Your task to perform on an android device: manage bookmarks in the chrome app Image 0: 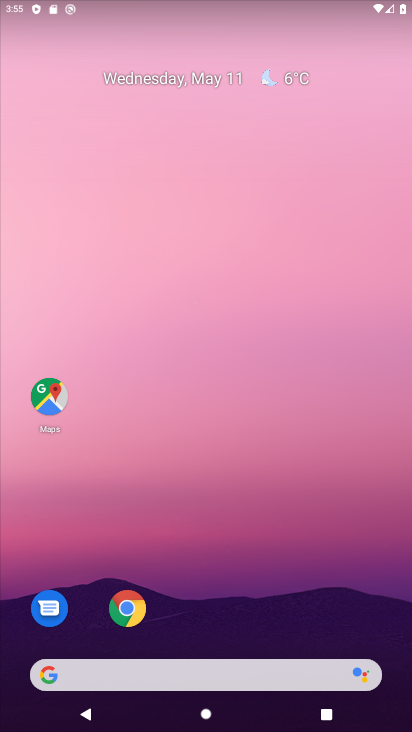
Step 0: click (120, 609)
Your task to perform on an android device: manage bookmarks in the chrome app Image 1: 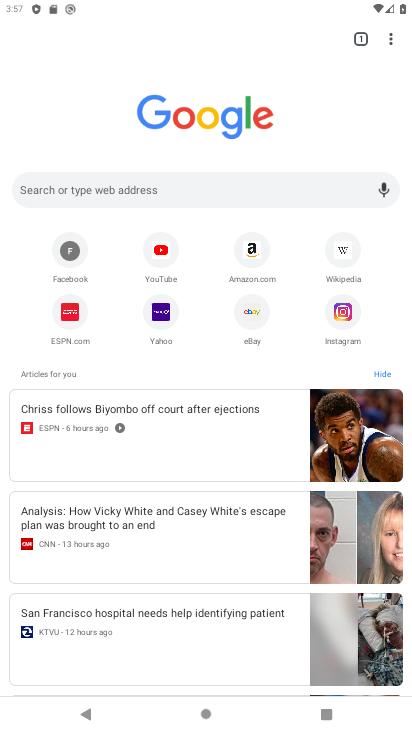
Step 1: click (392, 43)
Your task to perform on an android device: manage bookmarks in the chrome app Image 2: 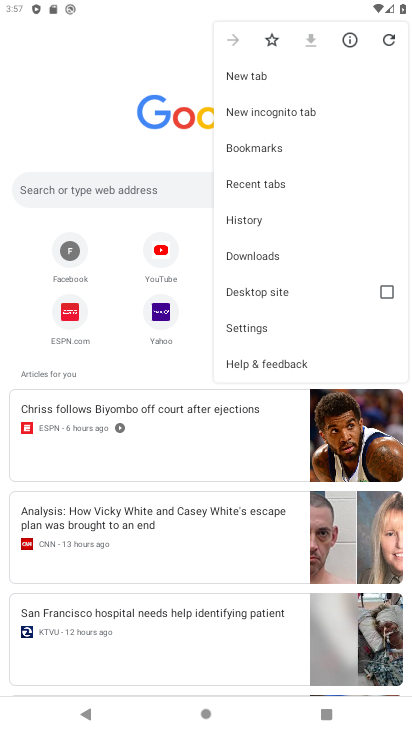
Step 2: click (259, 151)
Your task to perform on an android device: manage bookmarks in the chrome app Image 3: 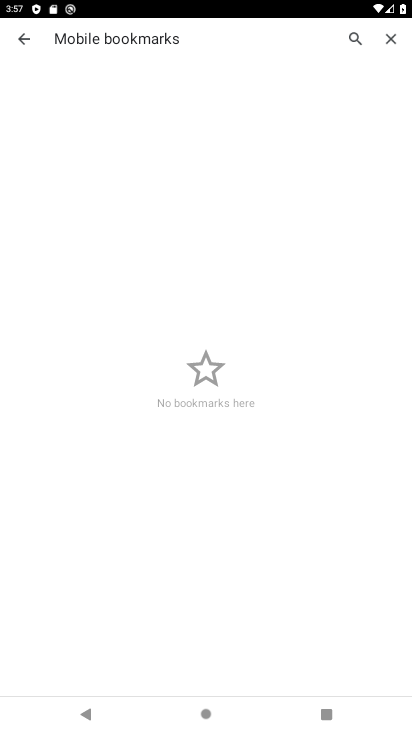
Step 3: task complete